Your task to perform on an android device: find photos in the google photos app Image 0: 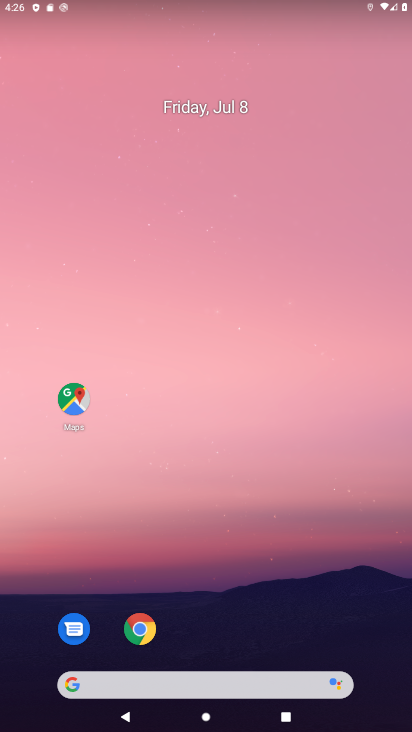
Step 0: drag from (200, 638) to (283, 107)
Your task to perform on an android device: find photos in the google photos app Image 1: 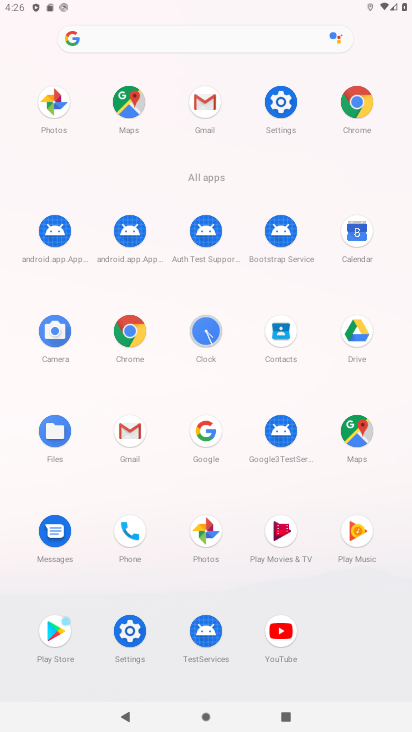
Step 1: click (208, 536)
Your task to perform on an android device: find photos in the google photos app Image 2: 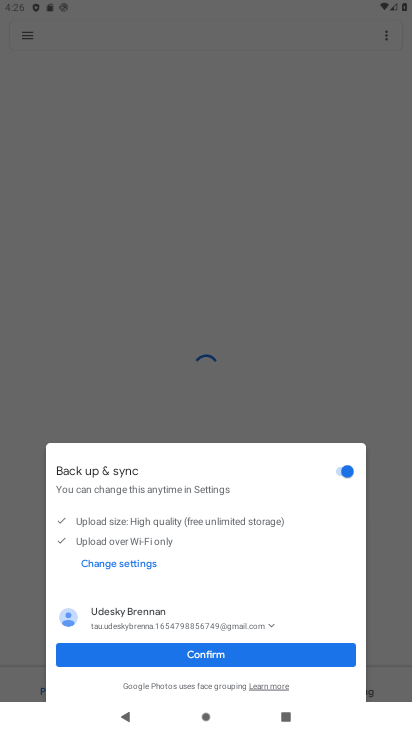
Step 2: click (185, 651)
Your task to perform on an android device: find photos in the google photos app Image 3: 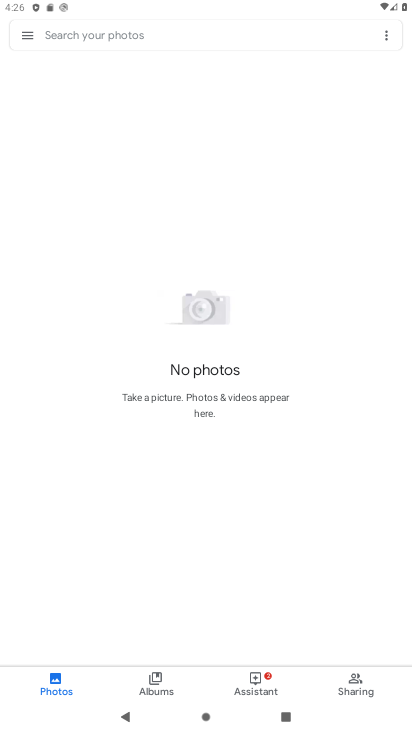
Step 3: task complete